Your task to perform on an android device: Clear the cart on walmart.com. Add dell xps to the cart on walmart.com Image 0: 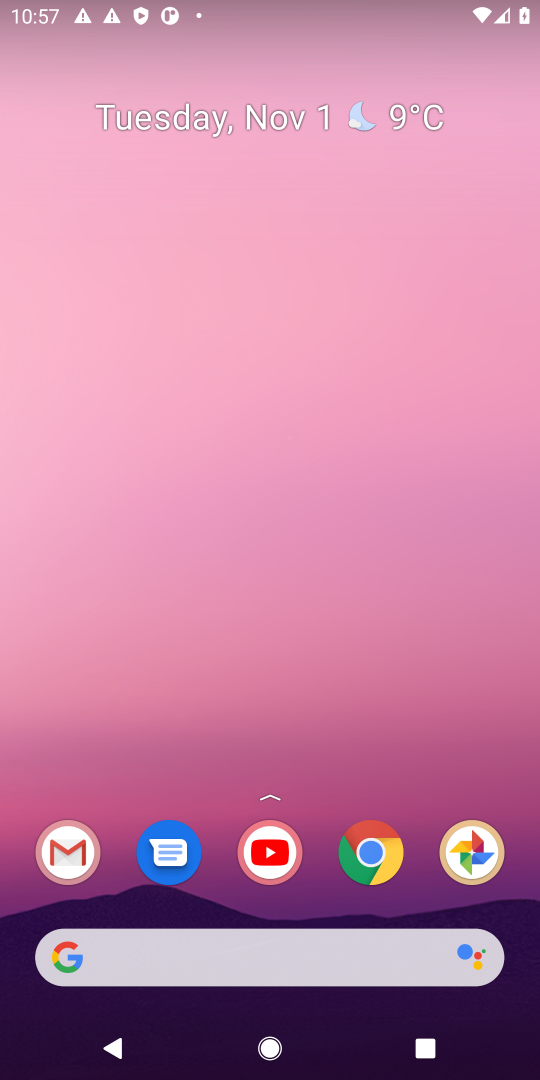
Step 0: drag from (284, 941) to (357, 167)
Your task to perform on an android device: Clear the cart on walmart.com. Add dell xps to the cart on walmart.com Image 1: 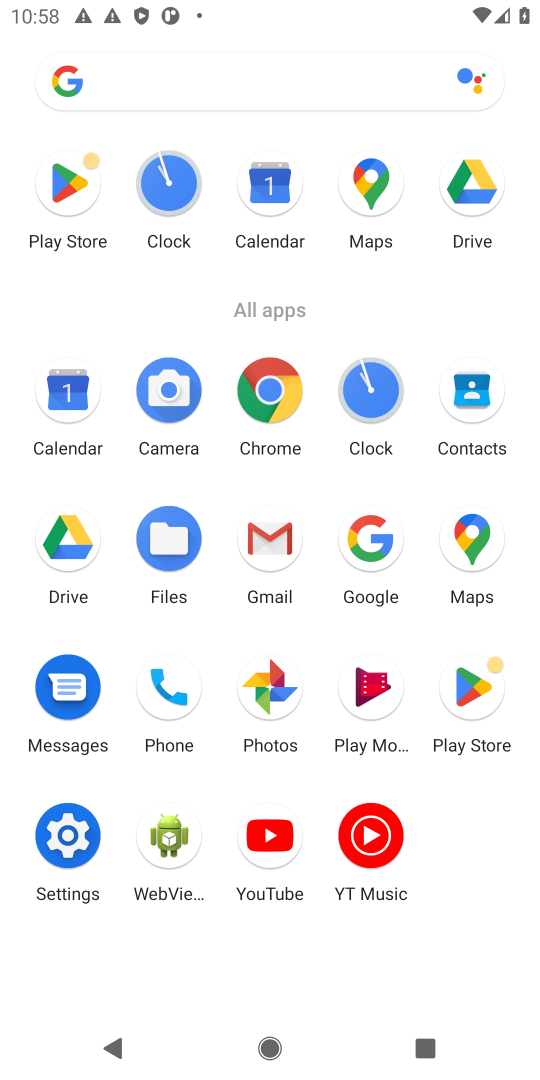
Step 1: click (376, 575)
Your task to perform on an android device: Clear the cart on walmart.com. Add dell xps to the cart on walmart.com Image 2: 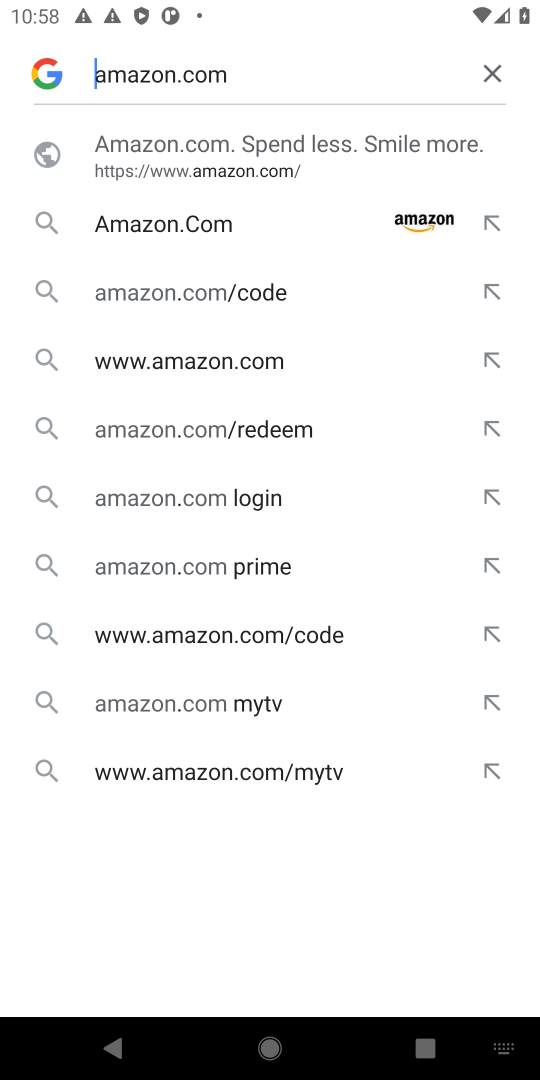
Step 2: click (482, 69)
Your task to perform on an android device: Clear the cart on walmart.com. Add dell xps to the cart on walmart.com Image 3: 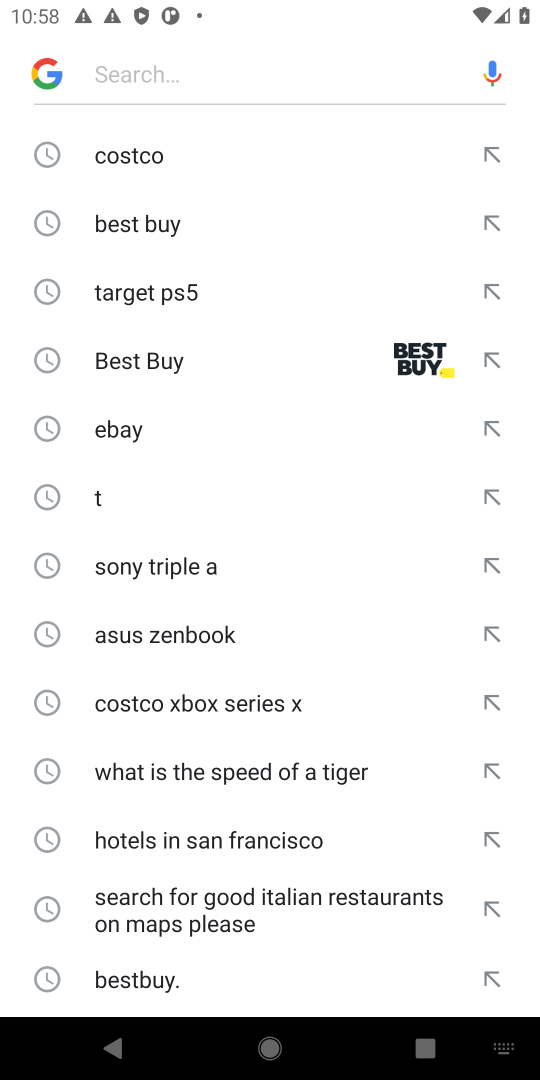
Step 3: type "walmart.com"
Your task to perform on an android device: Clear the cart on walmart.com. Add dell xps to the cart on walmart.com Image 4: 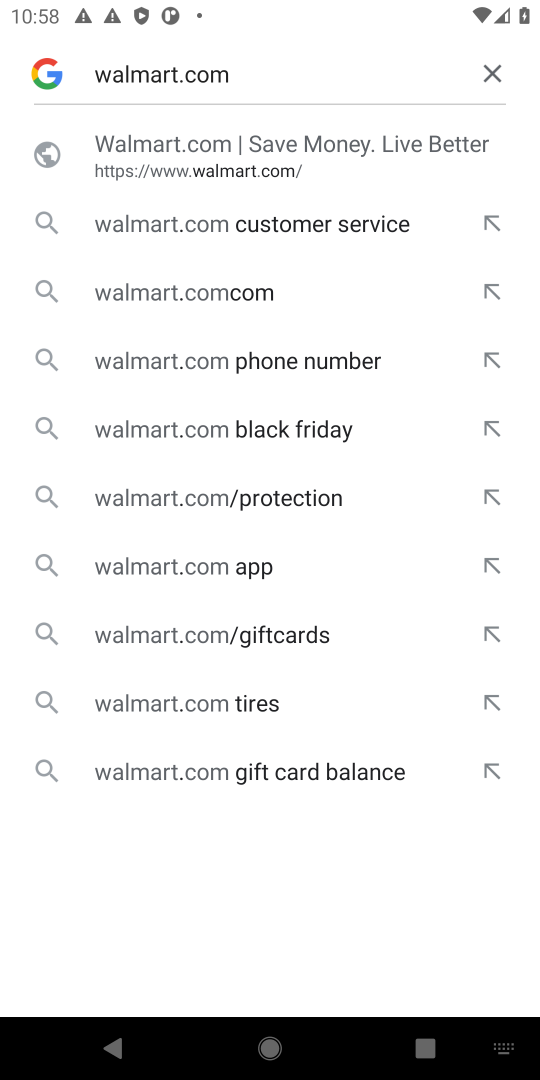
Step 4: click (211, 174)
Your task to perform on an android device: Clear the cart on walmart.com. Add dell xps to the cart on walmart.com Image 5: 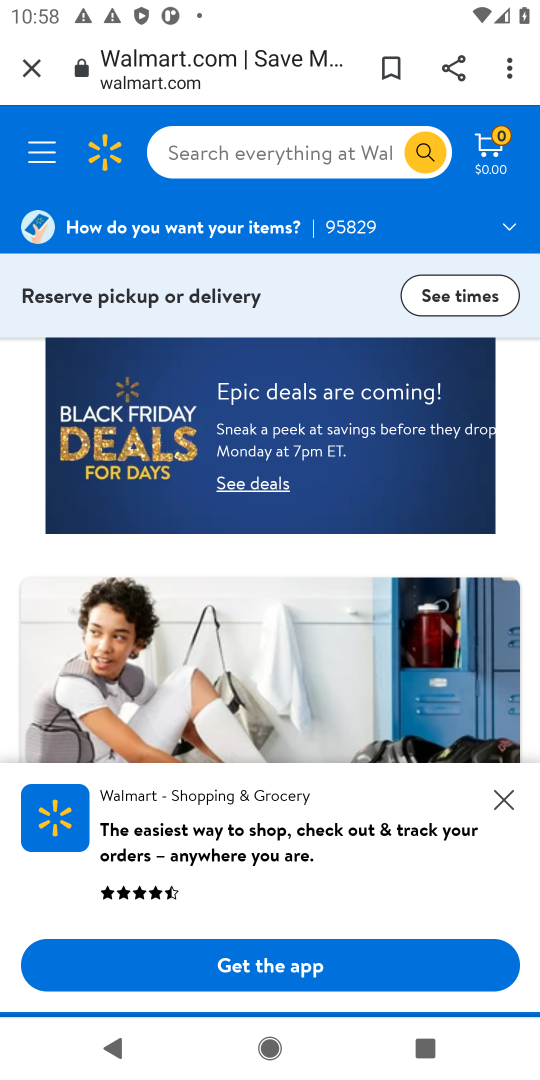
Step 5: click (317, 141)
Your task to perform on an android device: Clear the cart on walmart.com. Add dell xps to the cart on walmart.com Image 6: 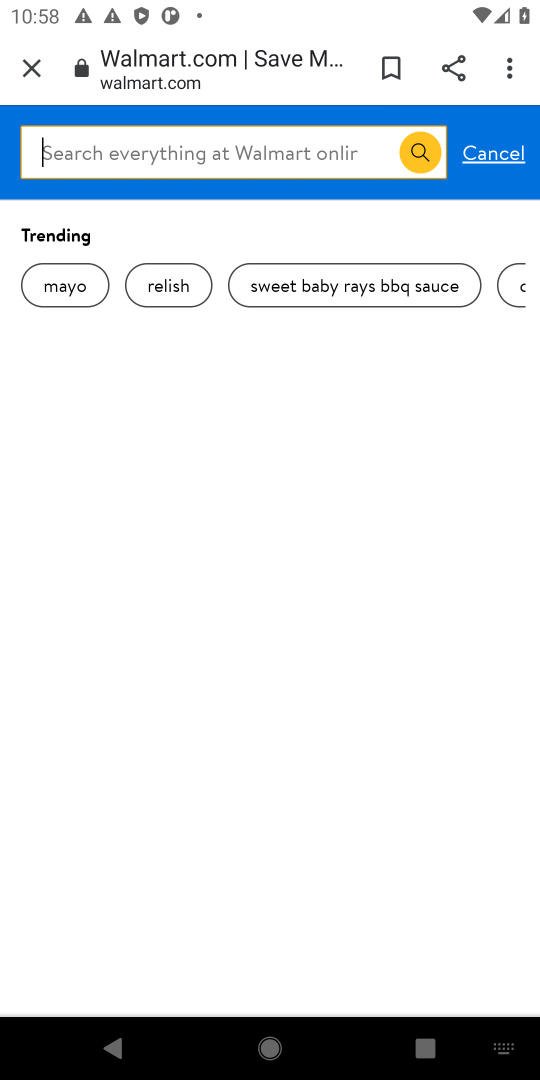
Step 6: type "walmart.com"
Your task to perform on an android device: Clear the cart on walmart.com. Add dell xps to the cart on walmart.com Image 7: 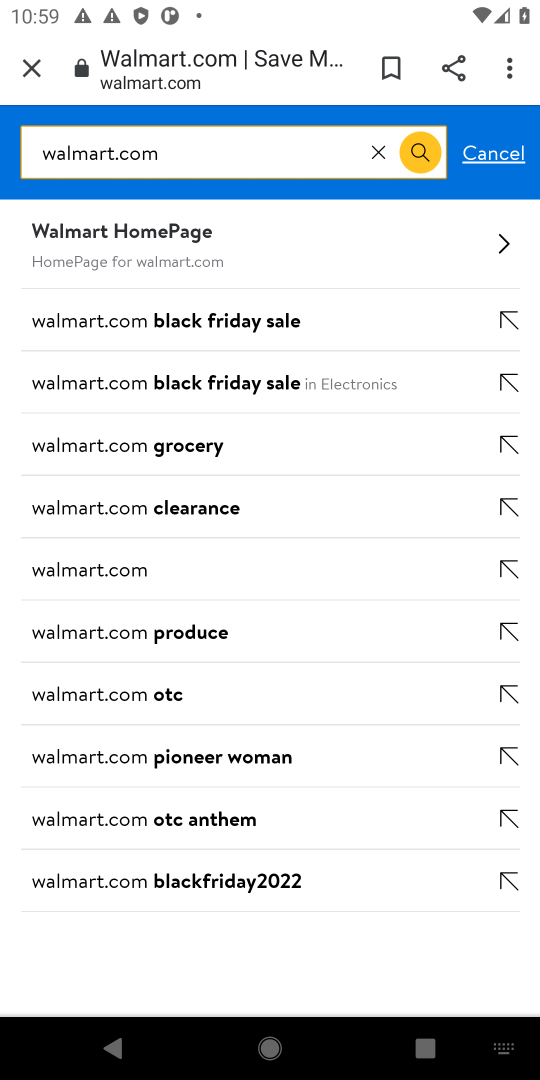
Step 7: click (183, 573)
Your task to perform on an android device: Clear the cart on walmart.com. Add dell xps to the cart on walmart.com Image 8: 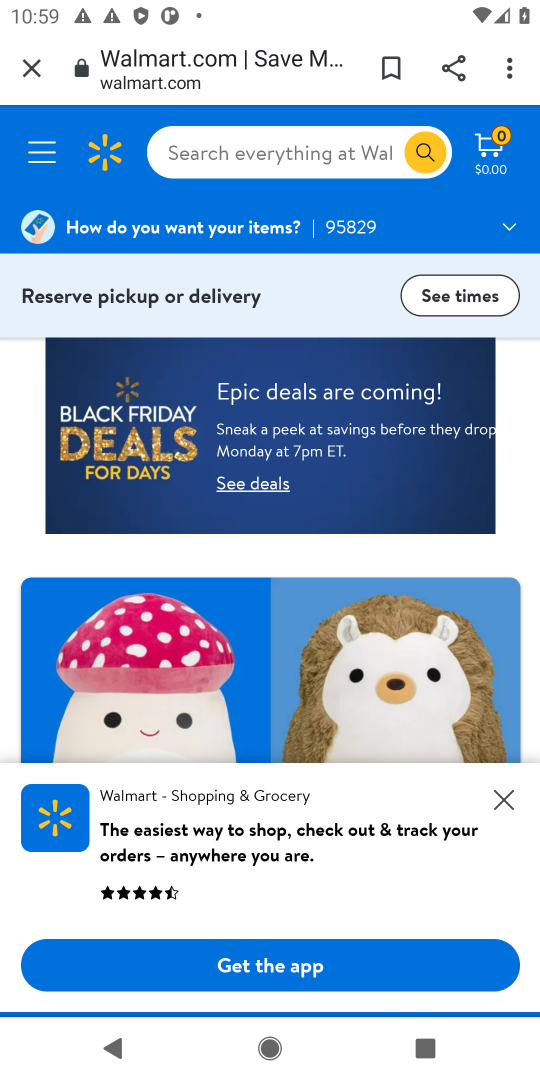
Step 8: click (345, 142)
Your task to perform on an android device: Clear the cart on walmart.com. Add dell xps to the cart on walmart.com Image 9: 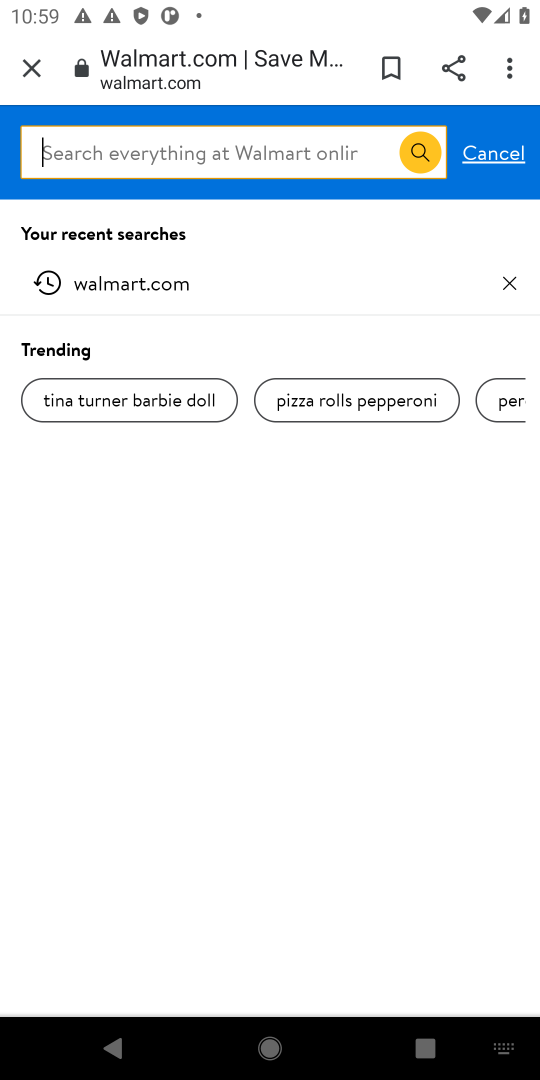
Step 9: type "dell xps"
Your task to perform on an android device: Clear the cart on walmart.com. Add dell xps to the cart on walmart.com Image 10: 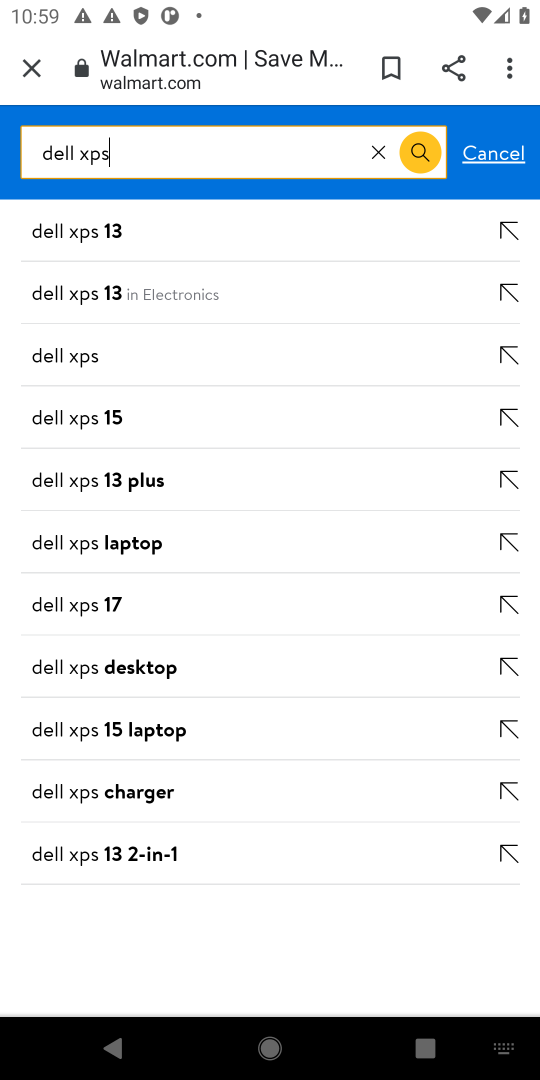
Step 10: click (68, 357)
Your task to perform on an android device: Clear the cart on walmart.com. Add dell xps to the cart on walmart.com Image 11: 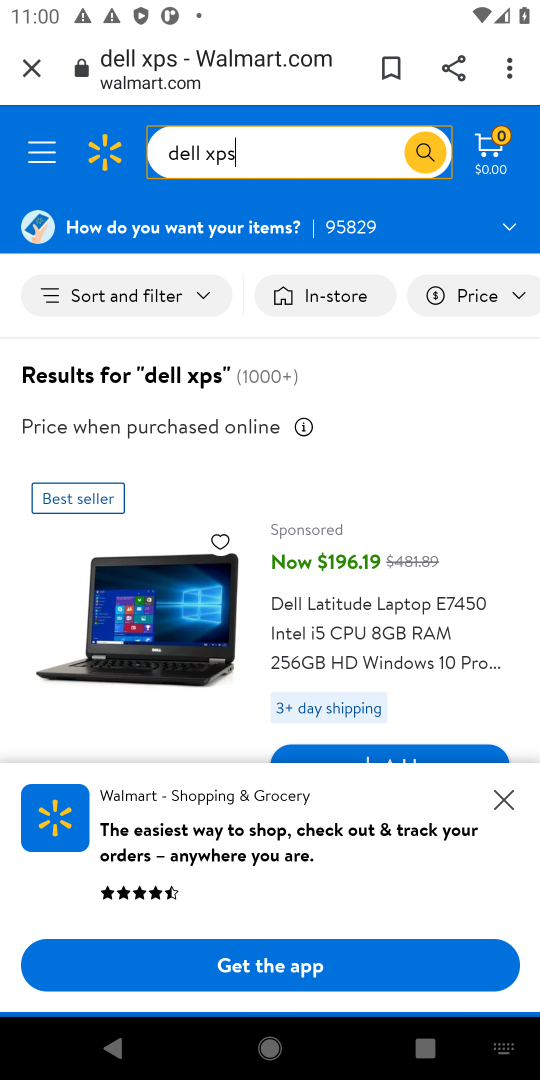
Step 11: click (499, 796)
Your task to perform on an android device: Clear the cart on walmart.com. Add dell xps to the cart on walmart.com Image 12: 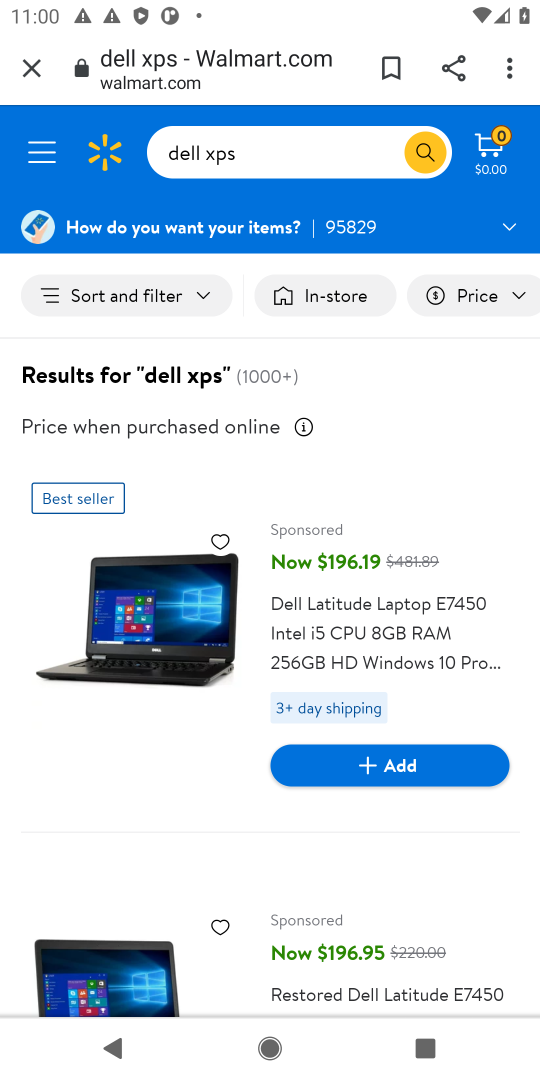
Step 12: click (406, 771)
Your task to perform on an android device: Clear the cart on walmart.com. Add dell xps to the cart on walmart.com Image 13: 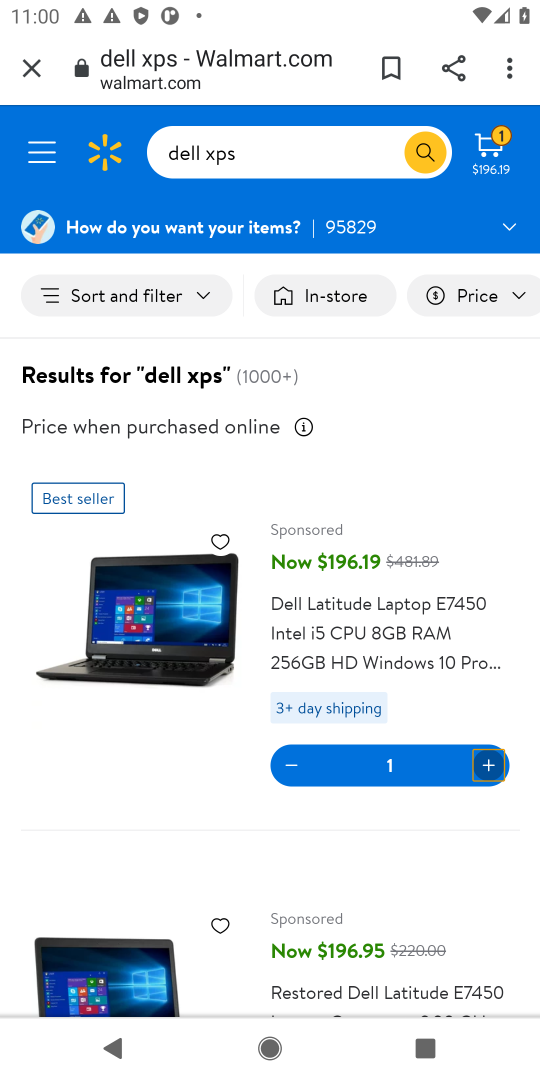
Step 13: task complete